Your task to perform on an android device: add a contact in the contacts app Image 0: 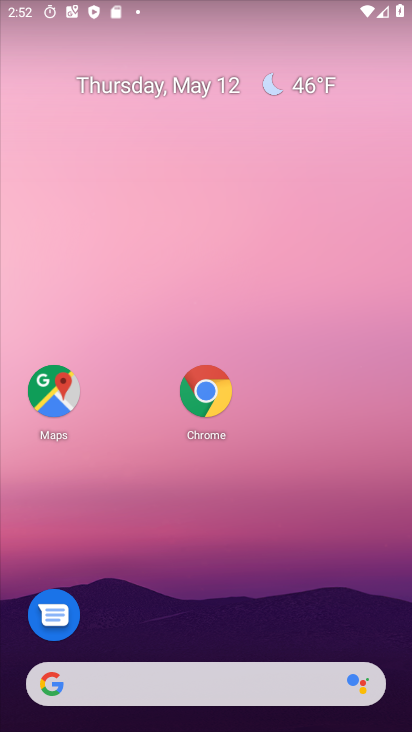
Step 0: drag from (172, 617) to (241, 49)
Your task to perform on an android device: add a contact in the contacts app Image 1: 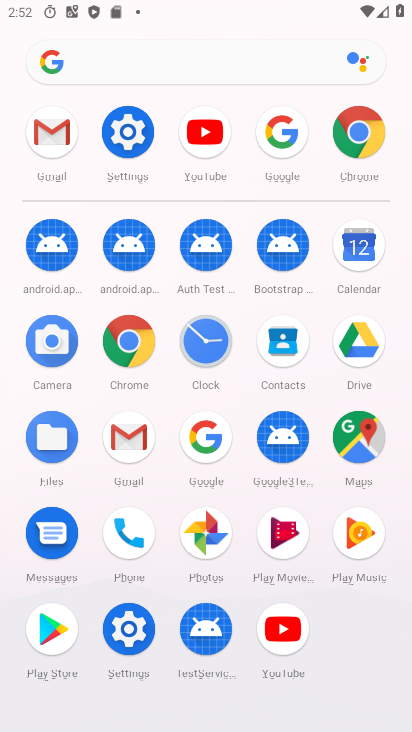
Step 1: click (287, 345)
Your task to perform on an android device: add a contact in the contacts app Image 2: 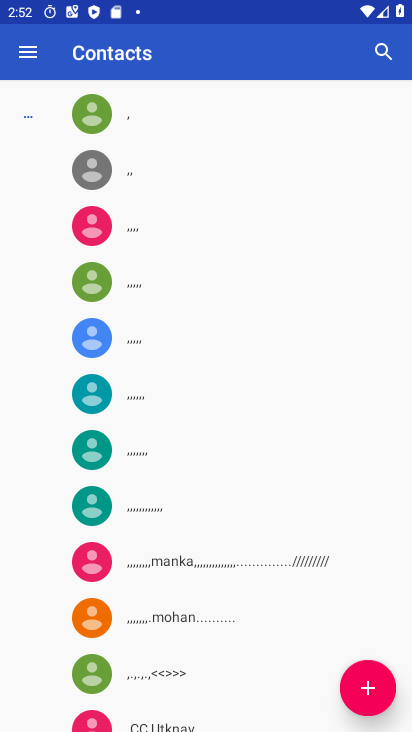
Step 2: click (363, 690)
Your task to perform on an android device: add a contact in the contacts app Image 3: 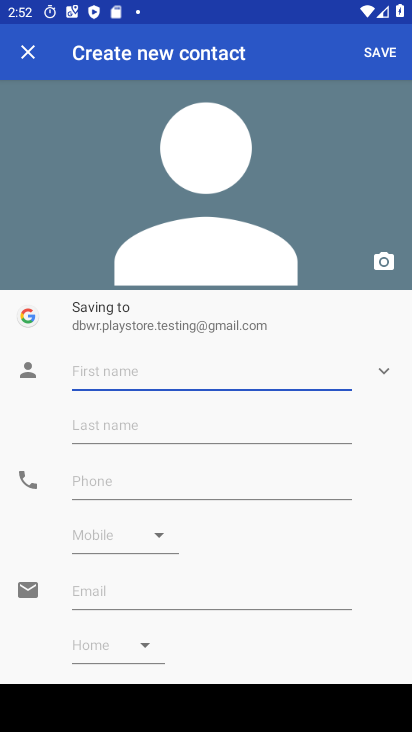
Step 3: click (191, 375)
Your task to perform on an android device: add a contact in the contacts app Image 4: 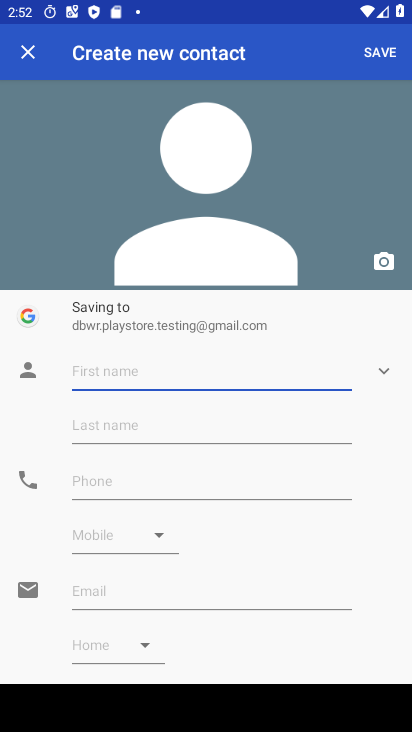
Step 4: type "fgxc"
Your task to perform on an android device: add a contact in the contacts app Image 5: 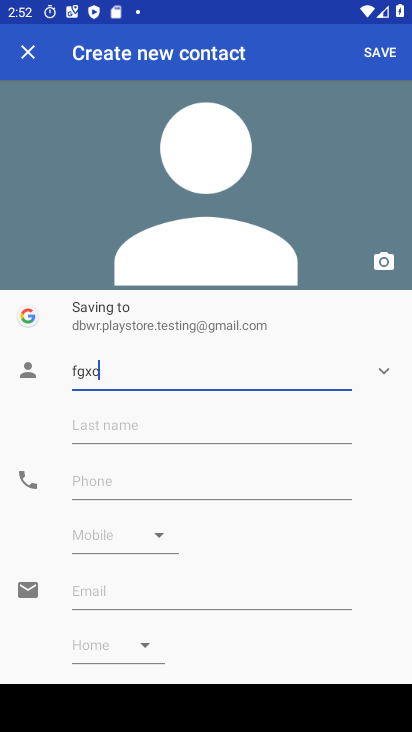
Step 5: click (387, 56)
Your task to perform on an android device: add a contact in the contacts app Image 6: 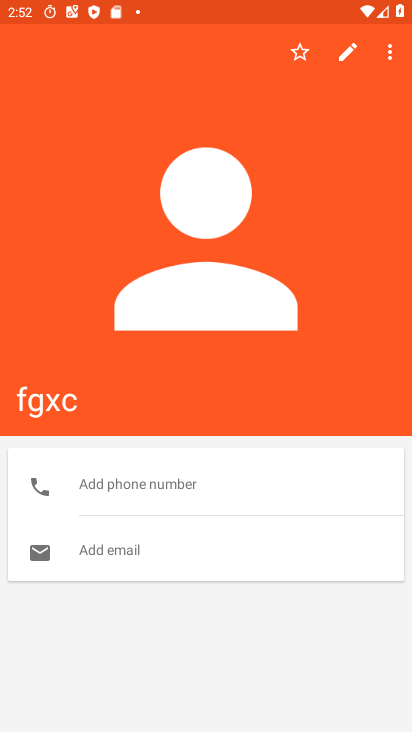
Step 6: task complete